Your task to perform on an android device: toggle airplane mode Image 0: 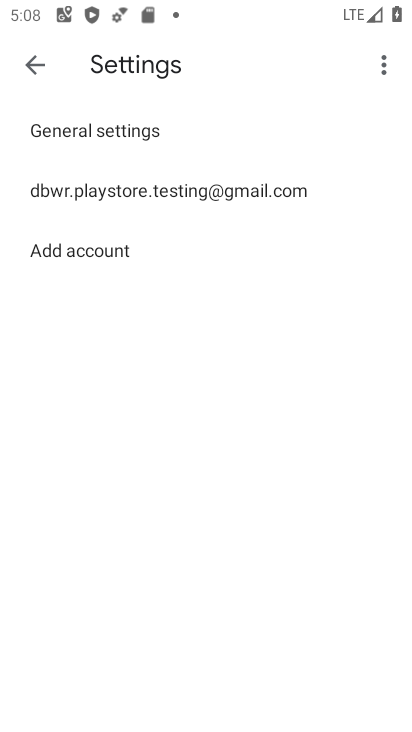
Step 0: press home button
Your task to perform on an android device: toggle airplane mode Image 1: 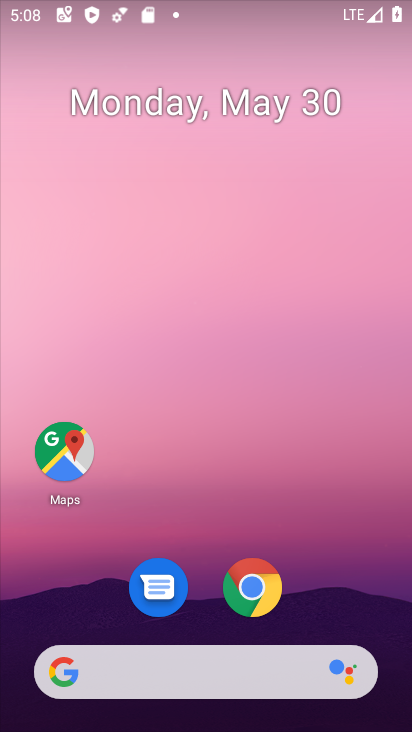
Step 1: drag from (320, 597) to (225, 33)
Your task to perform on an android device: toggle airplane mode Image 2: 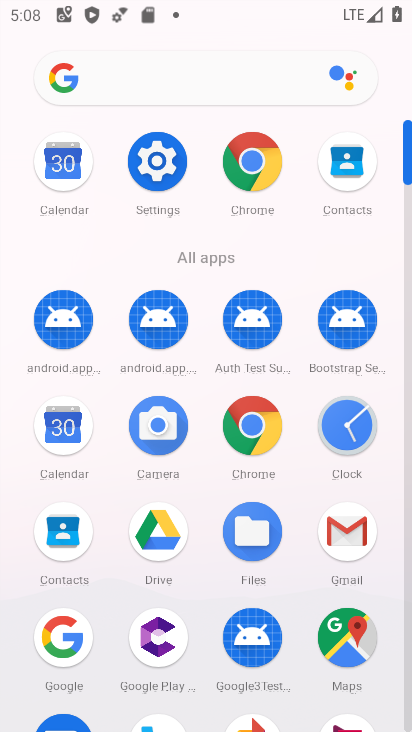
Step 2: click (157, 159)
Your task to perform on an android device: toggle airplane mode Image 3: 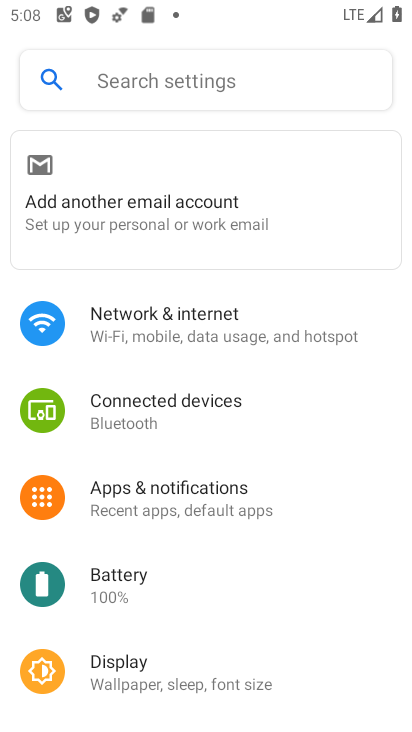
Step 3: click (237, 341)
Your task to perform on an android device: toggle airplane mode Image 4: 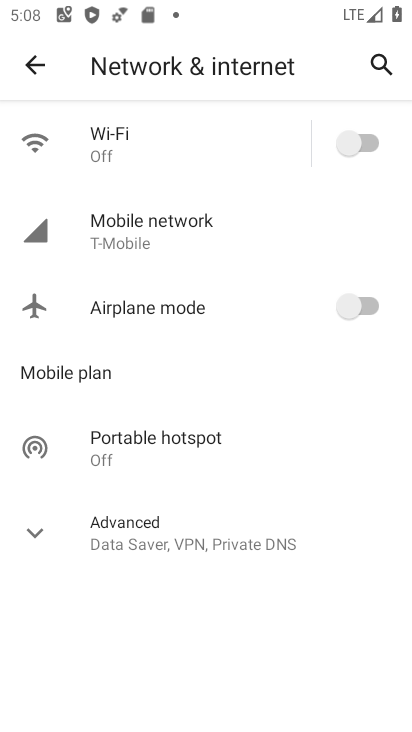
Step 4: click (347, 315)
Your task to perform on an android device: toggle airplane mode Image 5: 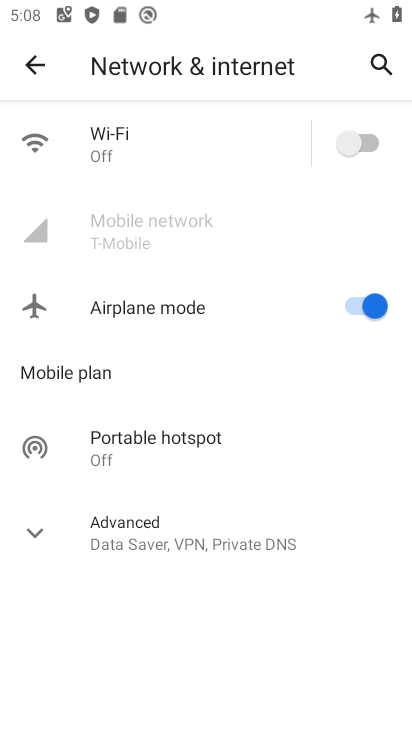
Step 5: task complete